Your task to perform on an android device: open the mobile data screen to see how much data has been used Image 0: 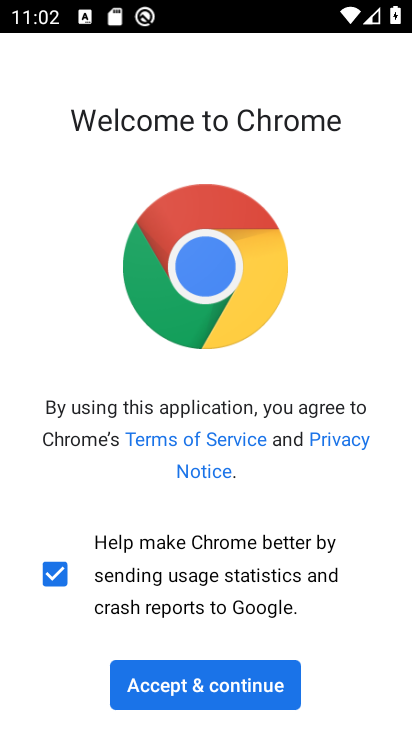
Step 0: press home button
Your task to perform on an android device: open the mobile data screen to see how much data has been used Image 1: 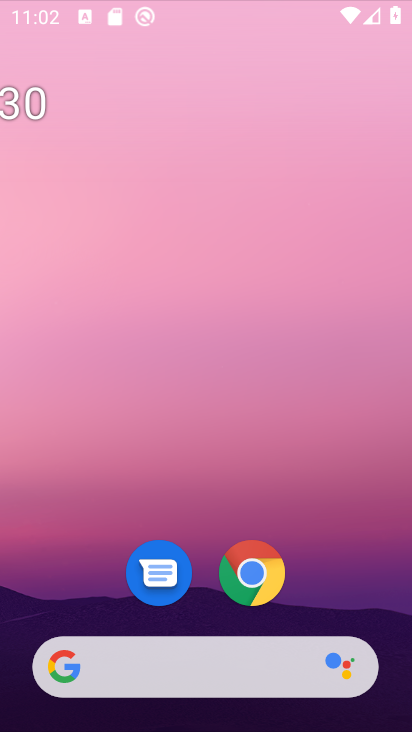
Step 1: drag from (186, 620) to (179, 33)
Your task to perform on an android device: open the mobile data screen to see how much data has been used Image 2: 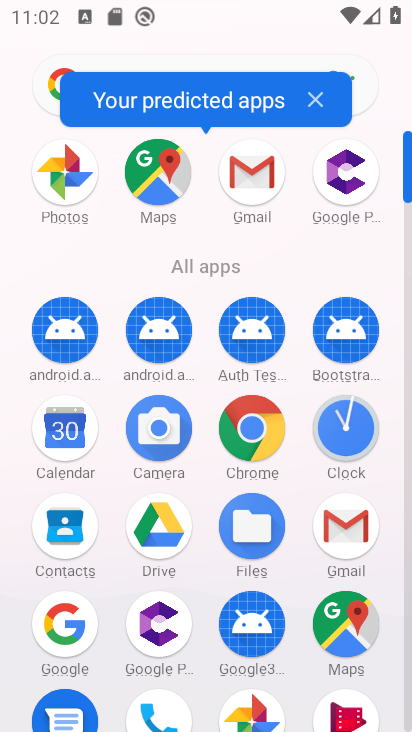
Step 2: drag from (178, 440) to (269, 84)
Your task to perform on an android device: open the mobile data screen to see how much data has been used Image 3: 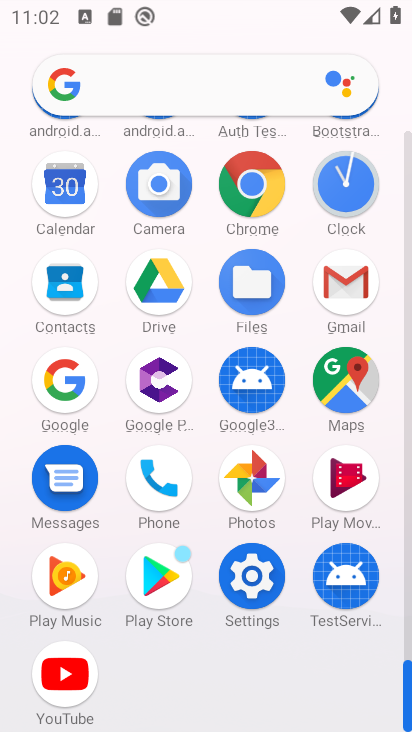
Step 3: click (262, 595)
Your task to perform on an android device: open the mobile data screen to see how much data has been used Image 4: 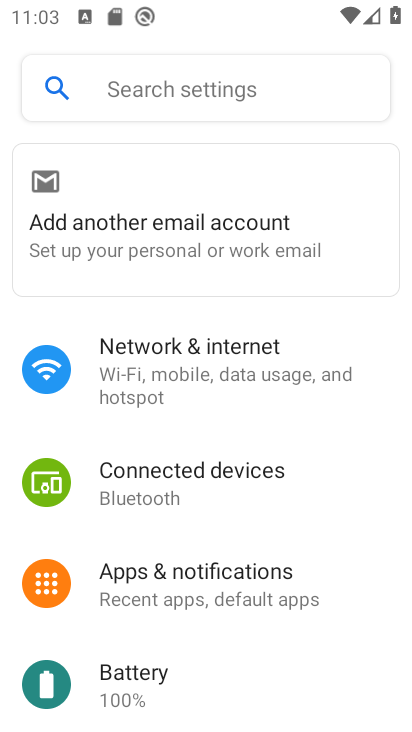
Step 4: click (250, 347)
Your task to perform on an android device: open the mobile data screen to see how much data has been used Image 5: 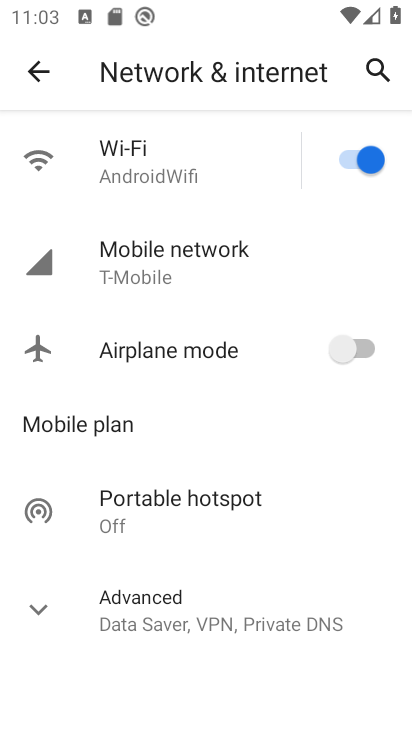
Step 5: click (188, 270)
Your task to perform on an android device: open the mobile data screen to see how much data has been used Image 6: 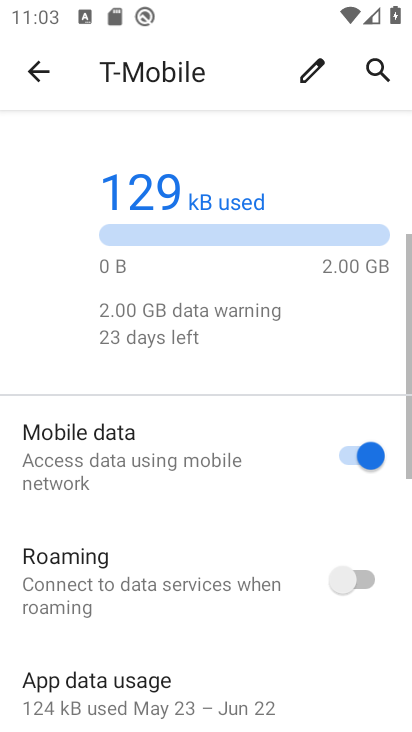
Step 6: click (167, 283)
Your task to perform on an android device: open the mobile data screen to see how much data has been used Image 7: 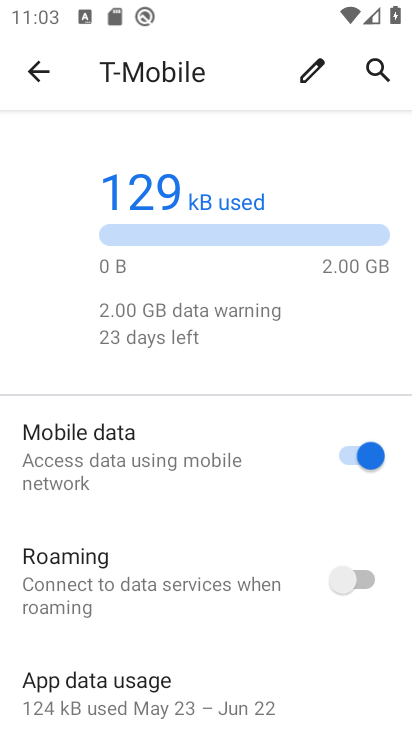
Step 7: click (107, 711)
Your task to perform on an android device: open the mobile data screen to see how much data has been used Image 8: 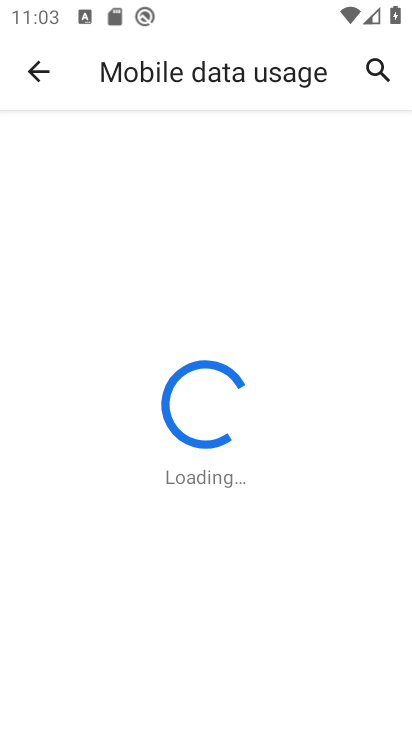
Step 8: task complete